Your task to perform on an android device: find photos in the google photos app Image 0: 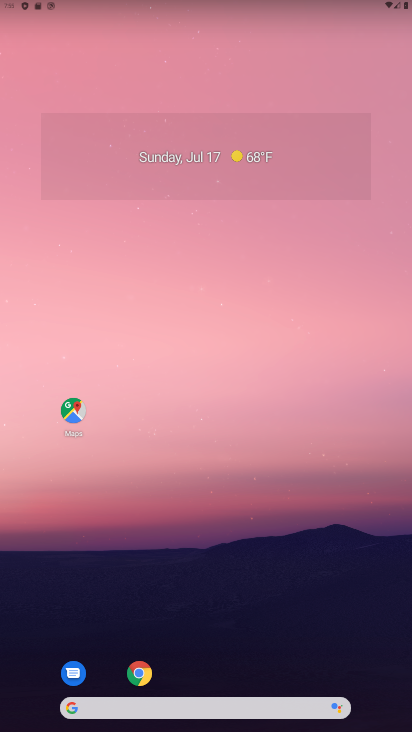
Step 0: drag from (305, 628) to (205, 117)
Your task to perform on an android device: find photos in the google photos app Image 1: 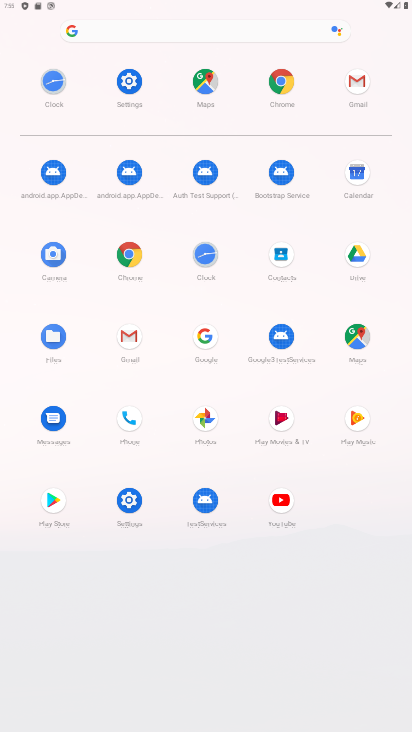
Step 1: click (196, 415)
Your task to perform on an android device: find photos in the google photos app Image 2: 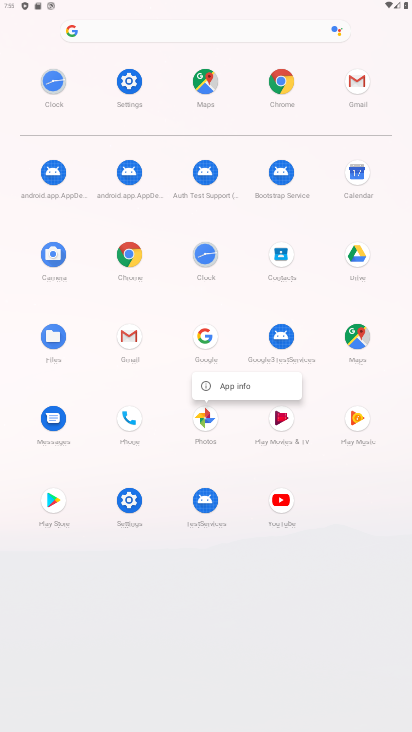
Step 2: click (196, 414)
Your task to perform on an android device: find photos in the google photos app Image 3: 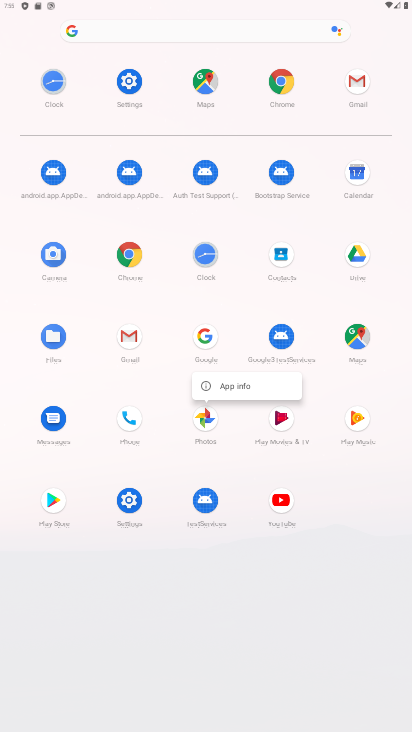
Step 3: click (204, 420)
Your task to perform on an android device: find photos in the google photos app Image 4: 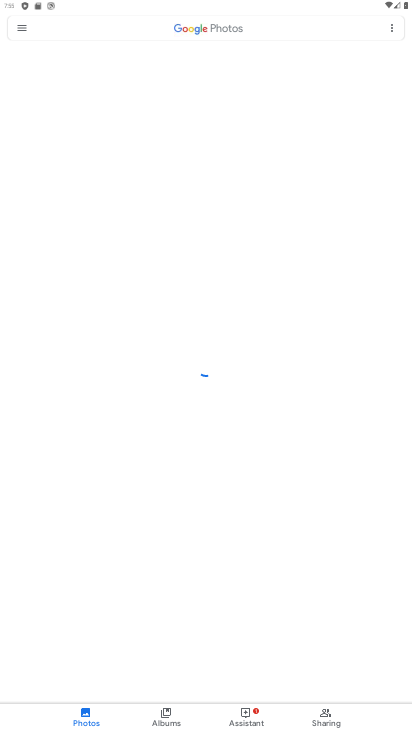
Step 4: task complete